Your task to perform on an android device: Open the calendar app, open the side menu, and click the "Day" option Image 0: 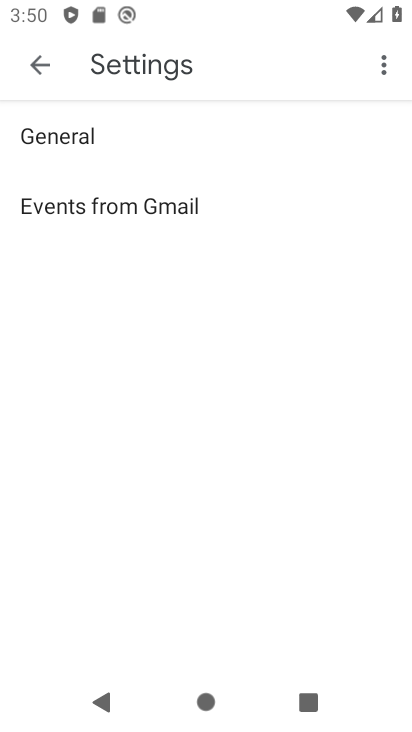
Step 0: press home button
Your task to perform on an android device: Open the calendar app, open the side menu, and click the "Day" option Image 1: 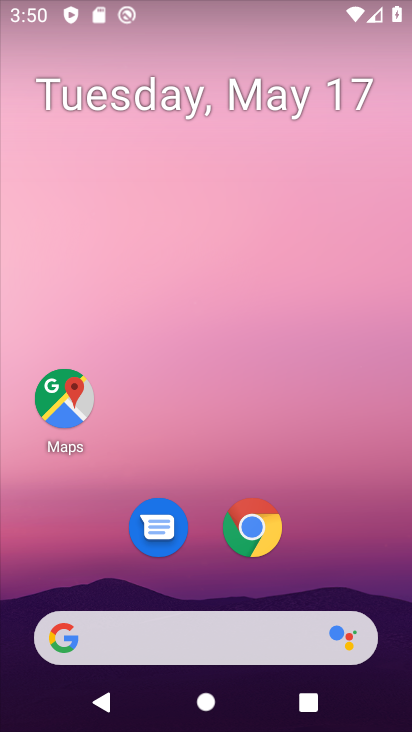
Step 1: drag from (71, 605) to (220, 108)
Your task to perform on an android device: Open the calendar app, open the side menu, and click the "Day" option Image 2: 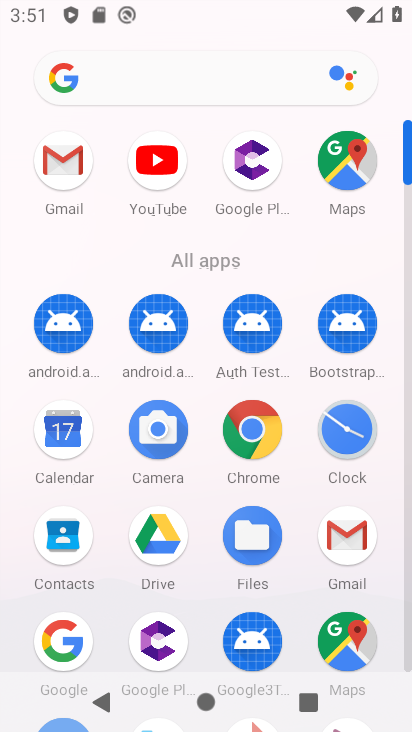
Step 2: click (72, 438)
Your task to perform on an android device: Open the calendar app, open the side menu, and click the "Day" option Image 3: 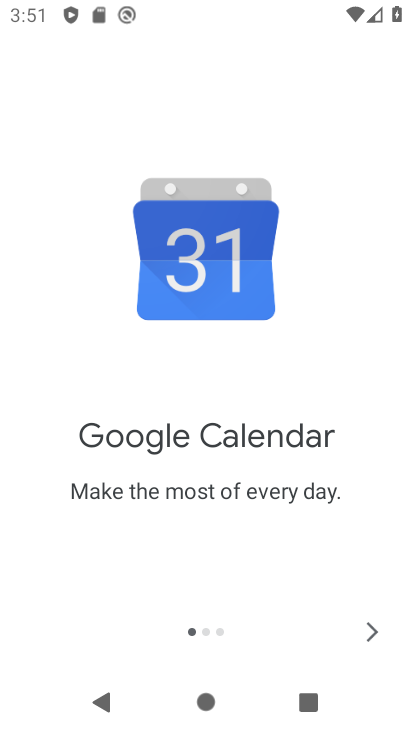
Step 3: click (374, 640)
Your task to perform on an android device: Open the calendar app, open the side menu, and click the "Day" option Image 4: 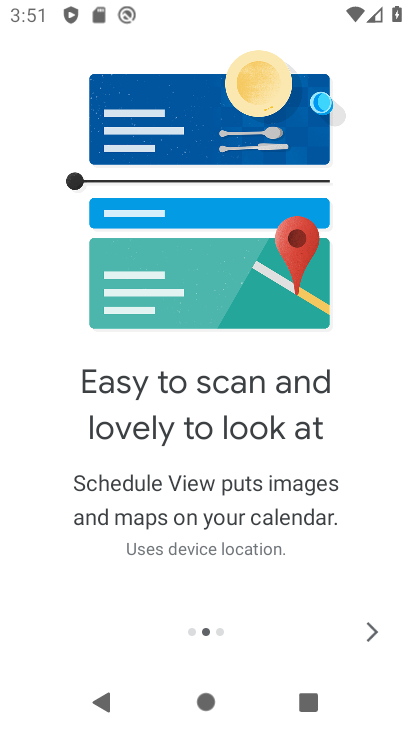
Step 4: click (373, 639)
Your task to perform on an android device: Open the calendar app, open the side menu, and click the "Day" option Image 5: 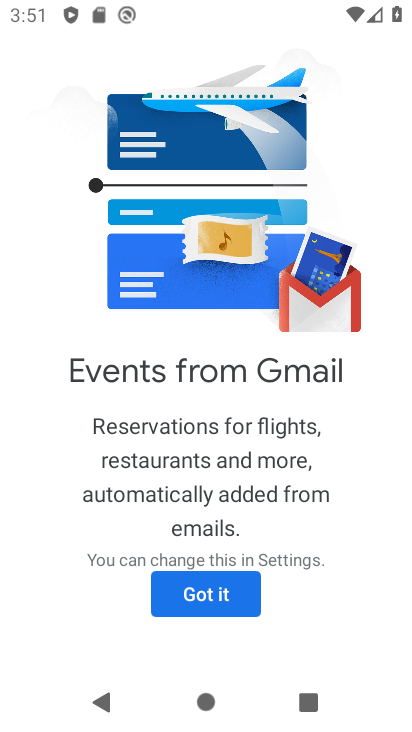
Step 5: click (218, 606)
Your task to perform on an android device: Open the calendar app, open the side menu, and click the "Day" option Image 6: 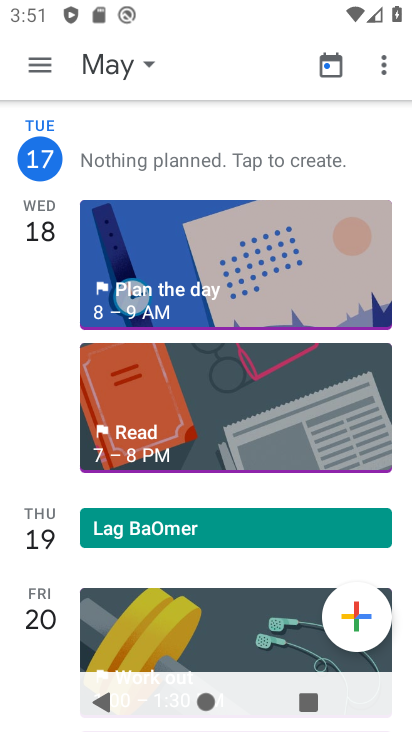
Step 6: click (29, 75)
Your task to perform on an android device: Open the calendar app, open the side menu, and click the "Day" option Image 7: 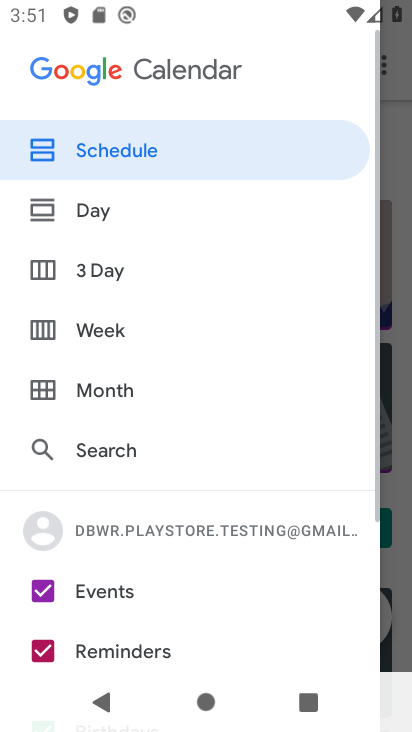
Step 7: click (139, 204)
Your task to perform on an android device: Open the calendar app, open the side menu, and click the "Day" option Image 8: 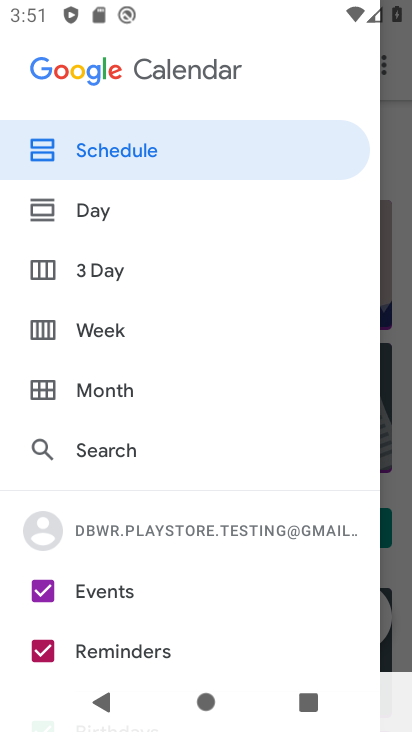
Step 8: click (139, 211)
Your task to perform on an android device: Open the calendar app, open the side menu, and click the "Day" option Image 9: 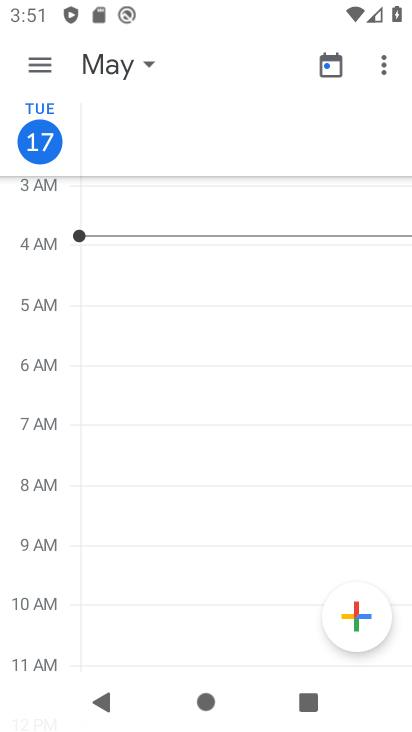
Step 9: task complete